Your task to perform on an android device: turn off location history Image 0: 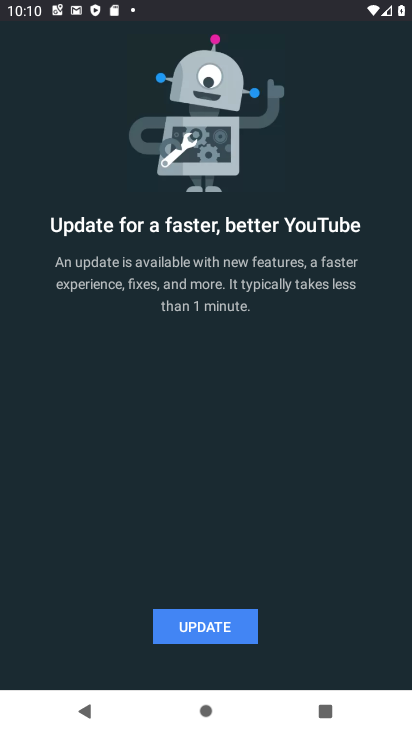
Step 0: press back button
Your task to perform on an android device: turn off location history Image 1: 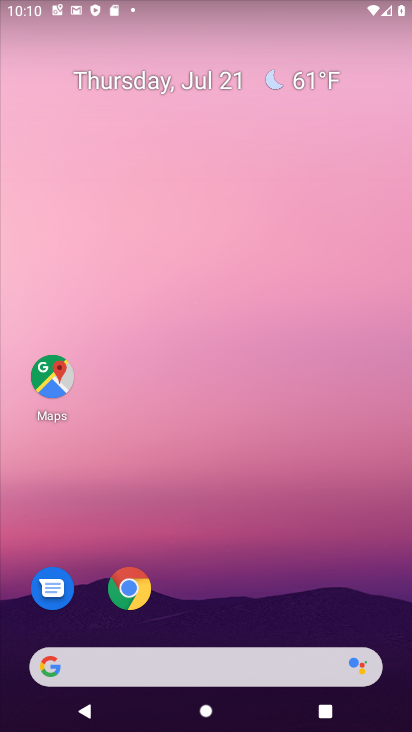
Step 1: drag from (204, 599) to (411, 181)
Your task to perform on an android device: turn off location history Image 2: 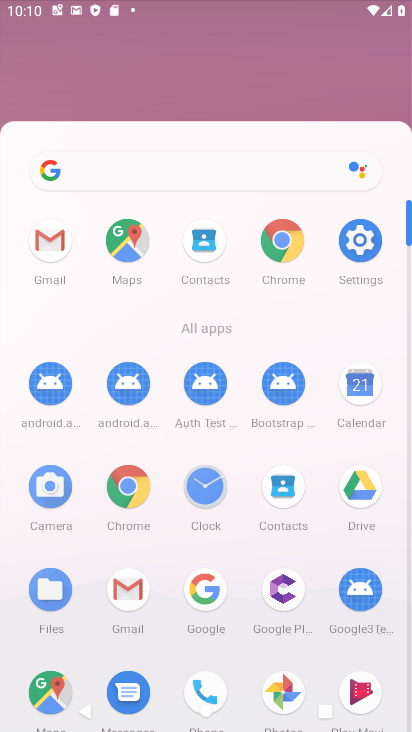
Step 2: click (358, 172)
Your task to perform on an android device: turn off location history Image 3: 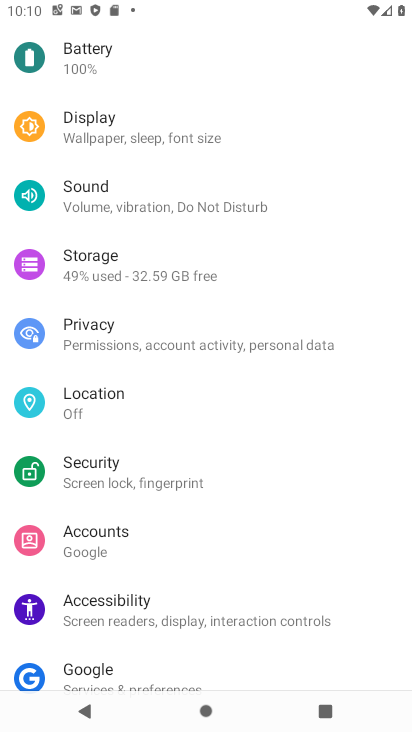
Step 3: click (127, 404)
Your task to perform on an android device: turn off location history Image 4: 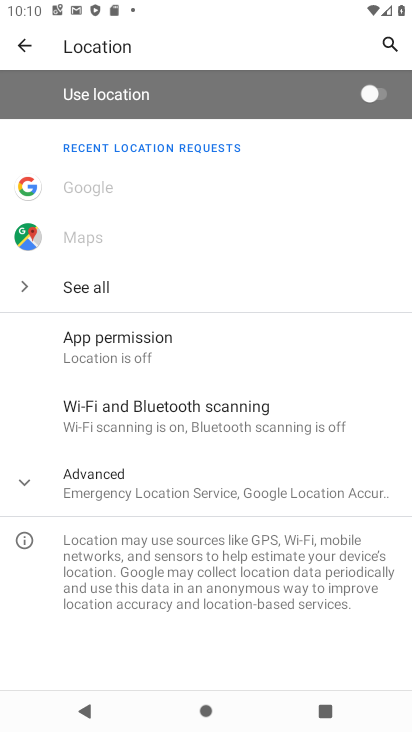
Step 4: click (171, 487)
Your task to perform on an android device: turn off location history Image 5: 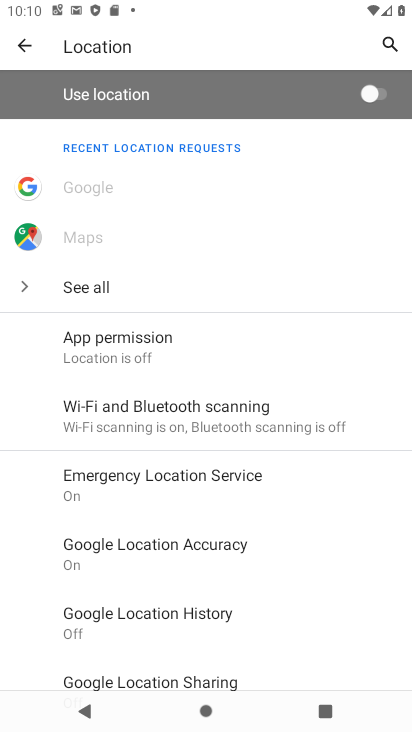
Step 5: click (172, 613)
Your task to perform on an android device: turn off location history Image 6: 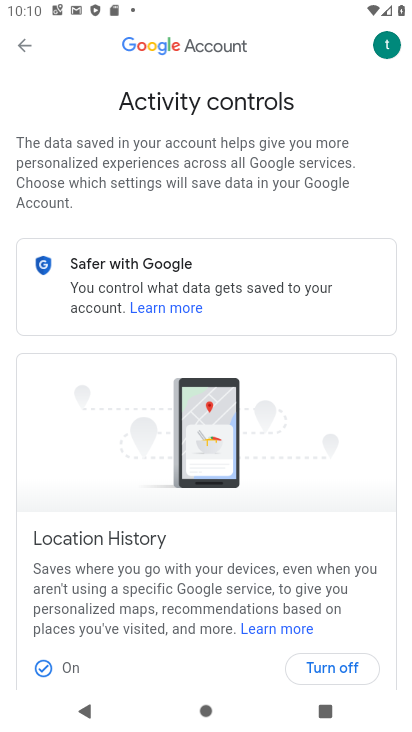
Step 6: click (348, 668)
Your task to perform on an android device: turn off location history Image 7: 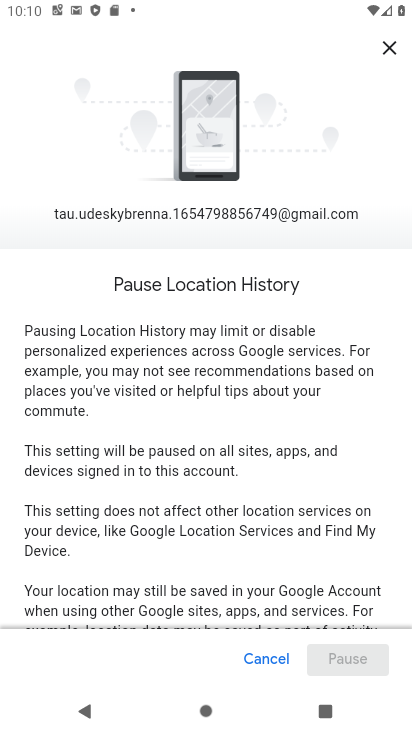
Step 7: drag from (302, 573) to (363, 21)
Your task to perform on an android device: turn off location history Image 8: 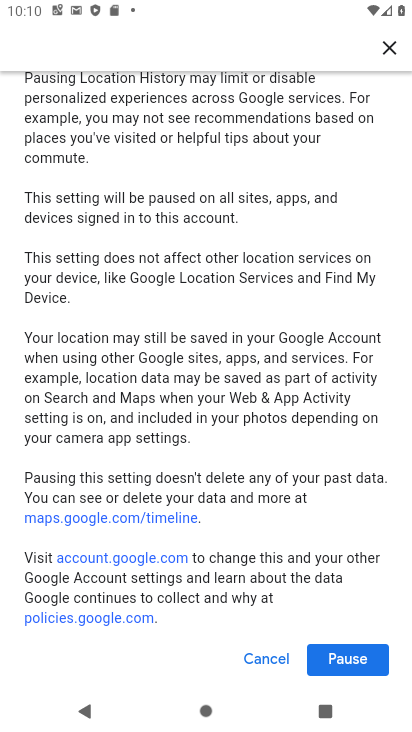
Step 8: click (347, 646)
Your task to perform on an android device: turn off location history Image 9: 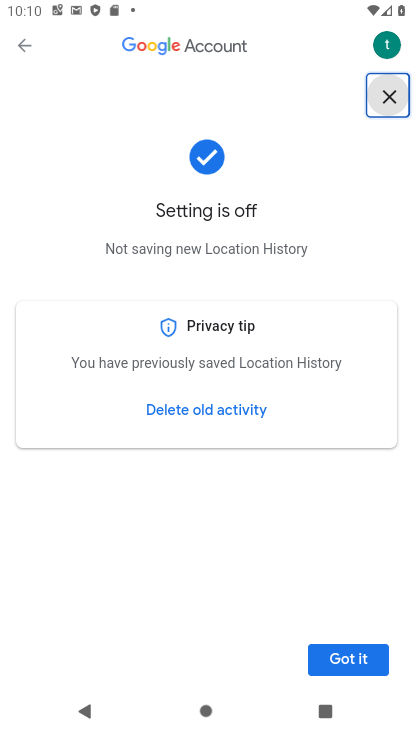
Step 9: click (353, 668)
Your task to perform on an android device: turn off location history Image 10: 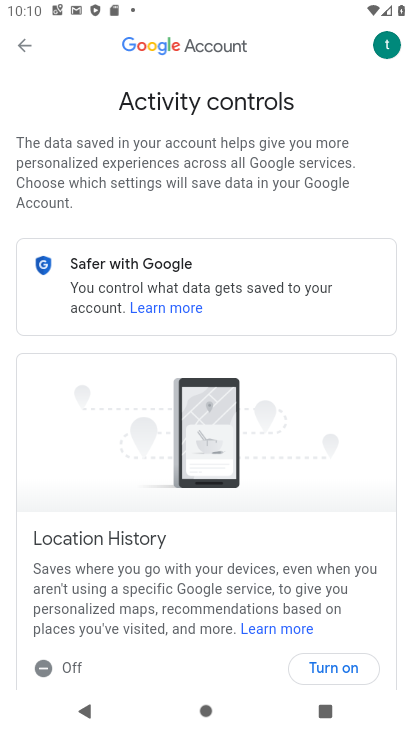
Step 10: task complete